Your task to perform on an android device: Do I have any events tomorrow? Image 0: 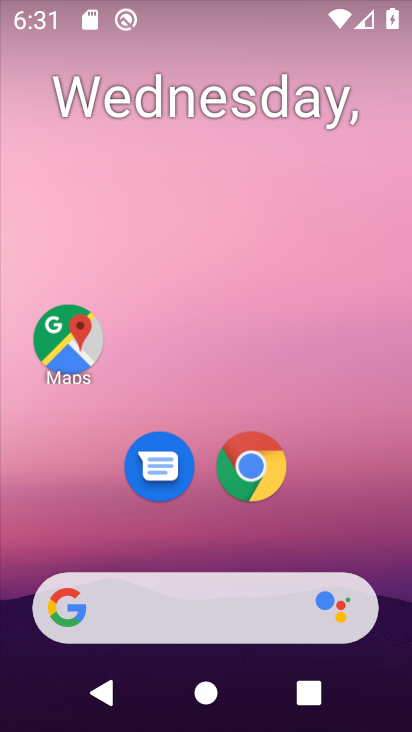
Step 0: drag from (333, 539) to (233, 13)
Your task to perform on an android device: Do I have any events tomorrow? Image 1: 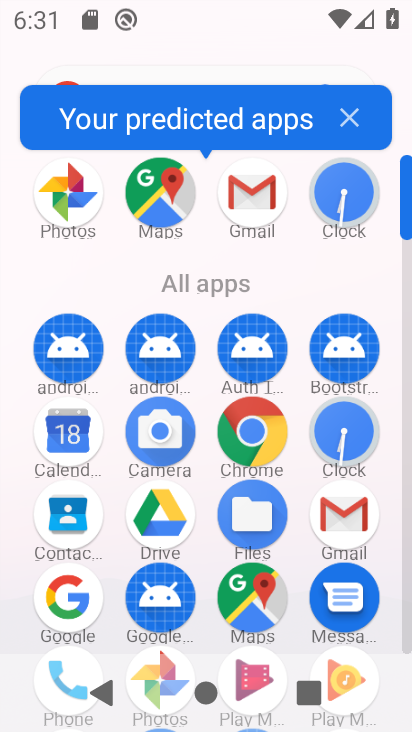
Step 1: click (54, 438)
Your task to perform on an android device: Do I have any events tomorrow? Image 2: 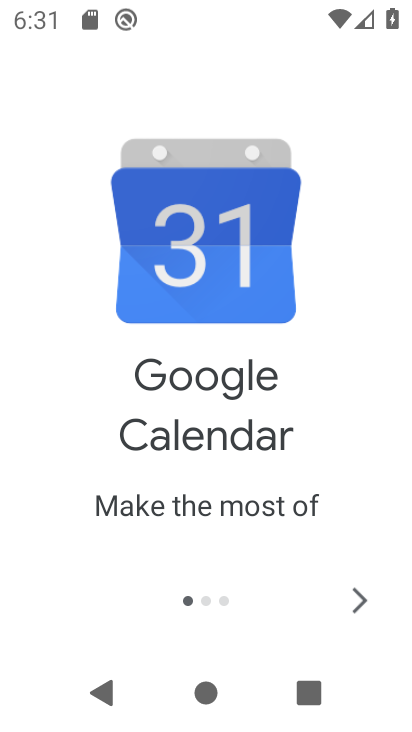
Step 2: click (359, 596)
Your task to perform on an android device: Do I have any events tomorrow? Image 3: 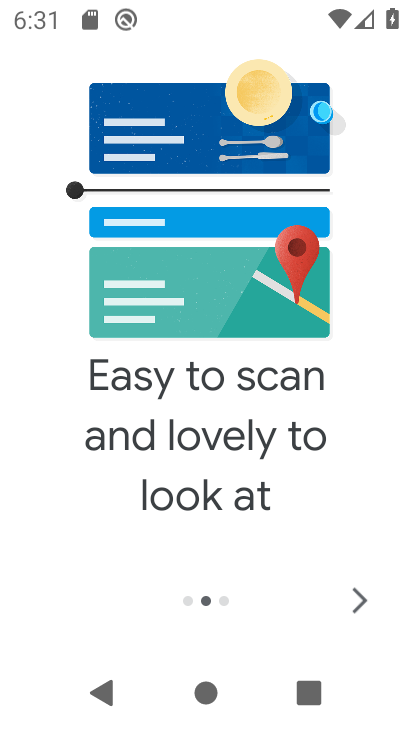
Step 3: click (359, 596)
Your task to perform on an android device: Do I have any events tomorrow? Image 4: 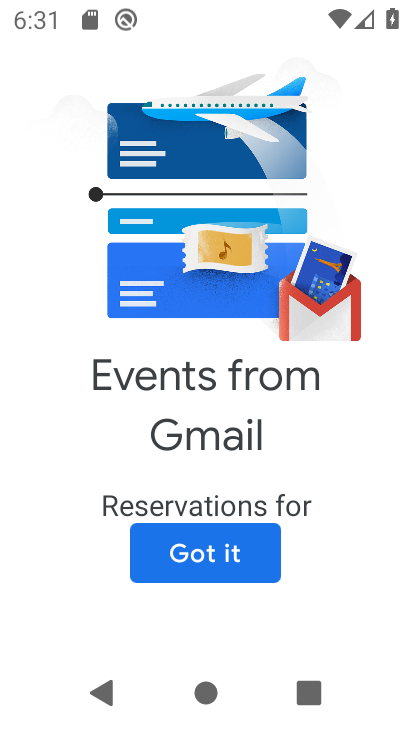
Step 4: click (216, 555)
Your task to perform on an android device: Do I have any events tomorrow? Image 5: 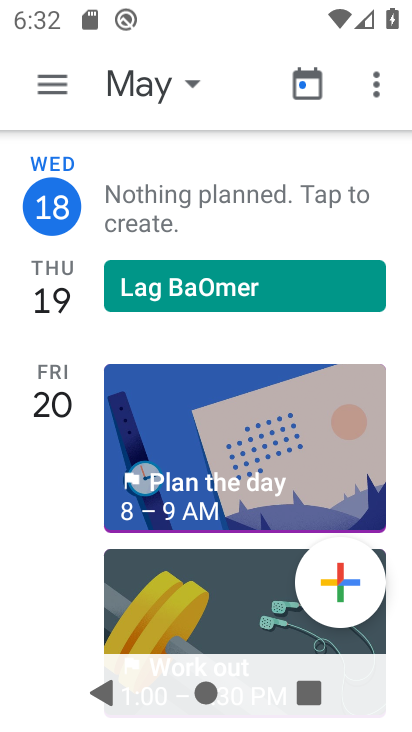
Step 5: click (50, 88)
Your task to perform on an android device: Do I have any events tomorrow? Image 6: 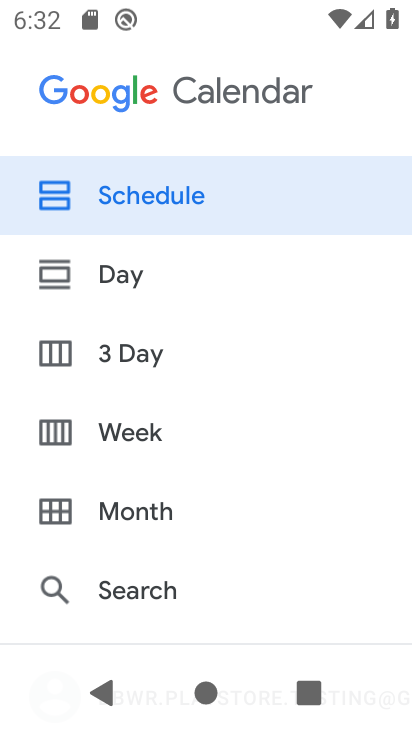
Step 6: click (124, 272)
Your task to perform on an android device: Do I have any events tomorrow? Image 7: 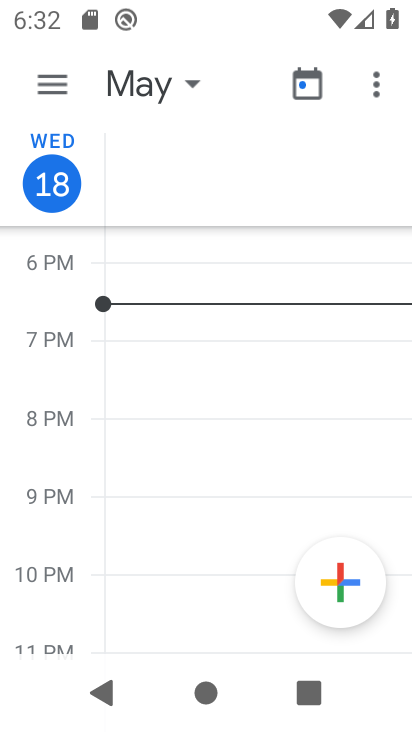
Step 7: click (190, 81)
Your task to perform on an android device: Do I have any events tomorrow? Image 8: 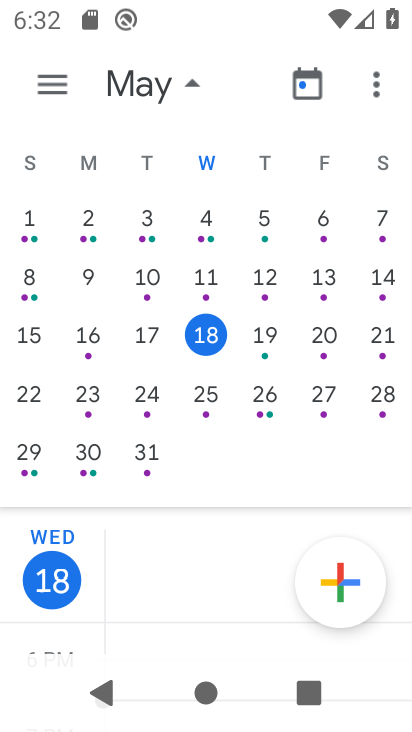
Step 8: click (259, 343)
Your task to perform on an android device: Do I have any events tomorrow? Image 9: 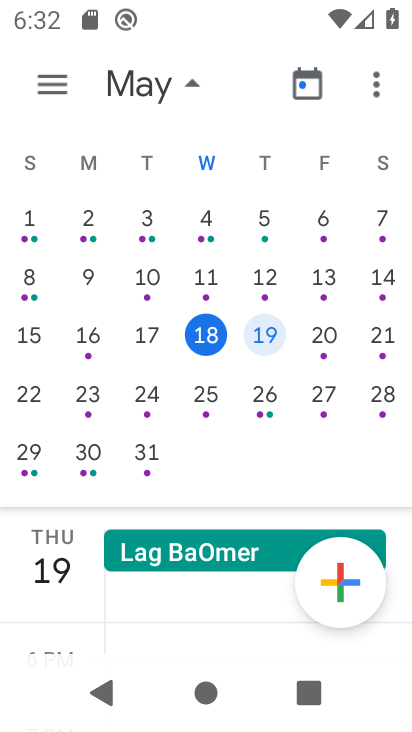
Step 9: task complete